Your task to perform on an android device: open wifi settings Image 0: 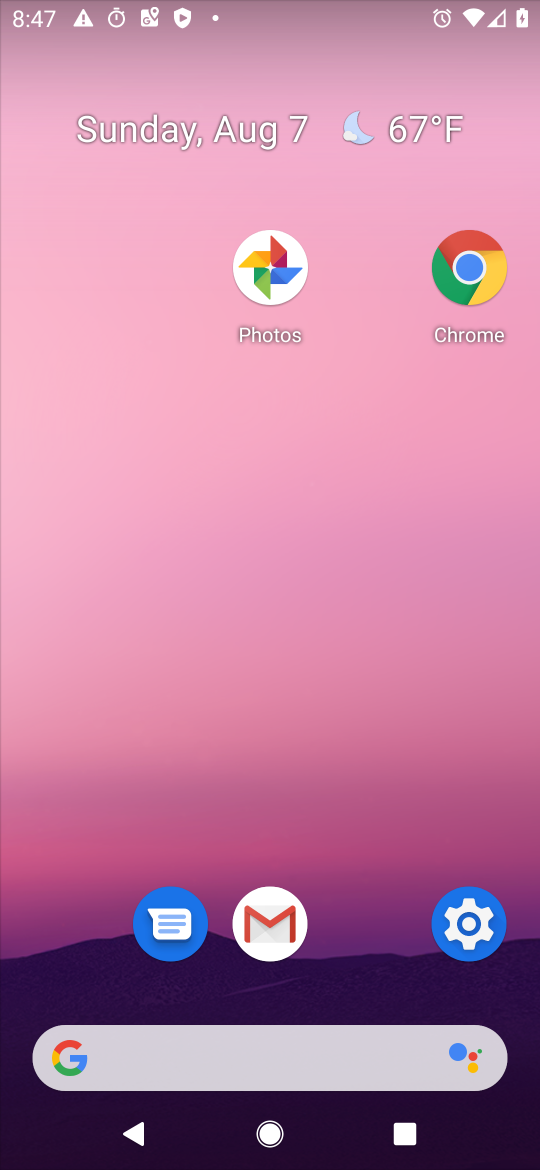
Step 0: drag from (367, 1096) to (322, 282)
Your task to perform on an android device: open wifi settings Image 1: 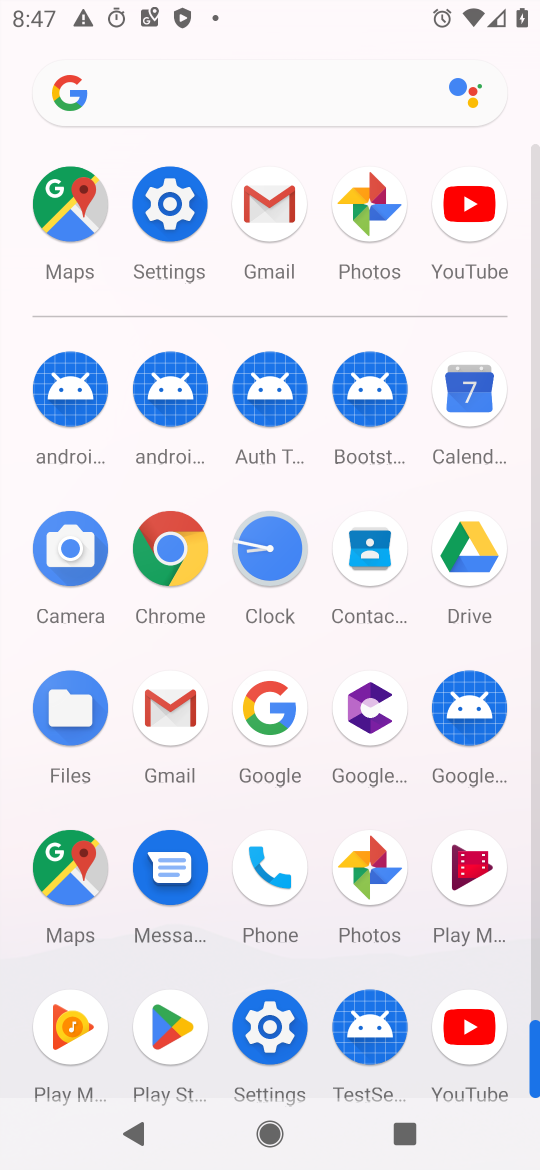
Step 1: click (180, 203)
Your task to perform on an android device: open wifi settings Image 2: 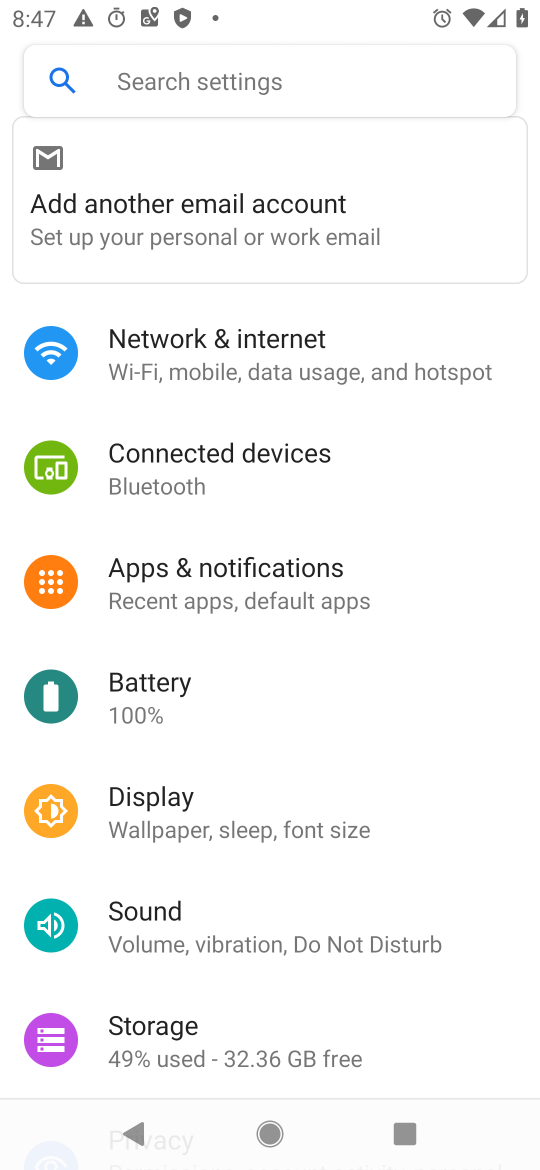
Step 2: click (184, 336)
Your task to perform on an android device: open wifi settings Image 3: 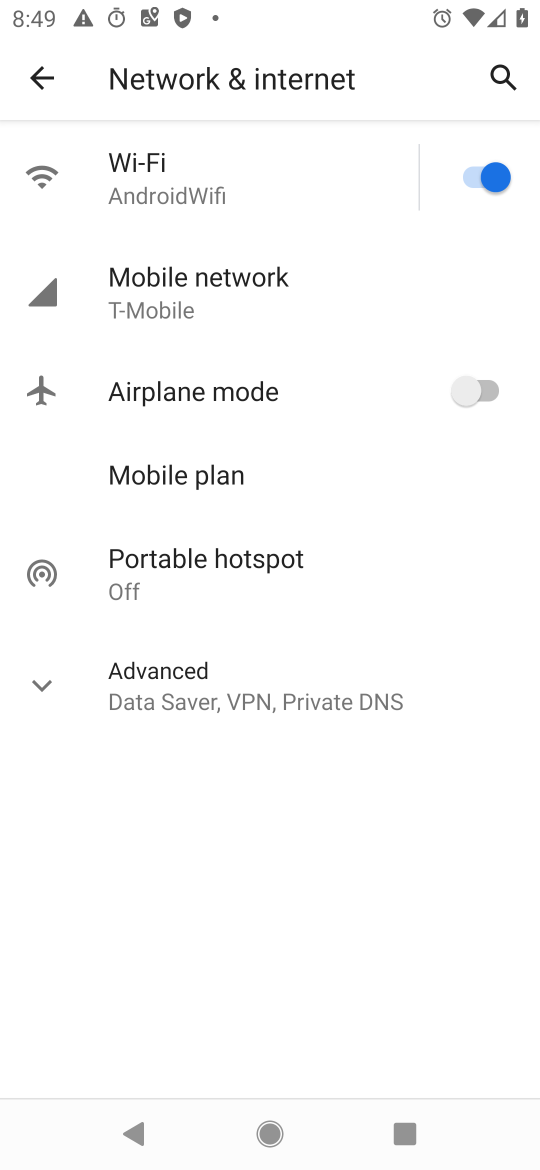
Step 3: task complete